Your task to perform on an android device: turn on showing notifications on the lock screen Image 0: 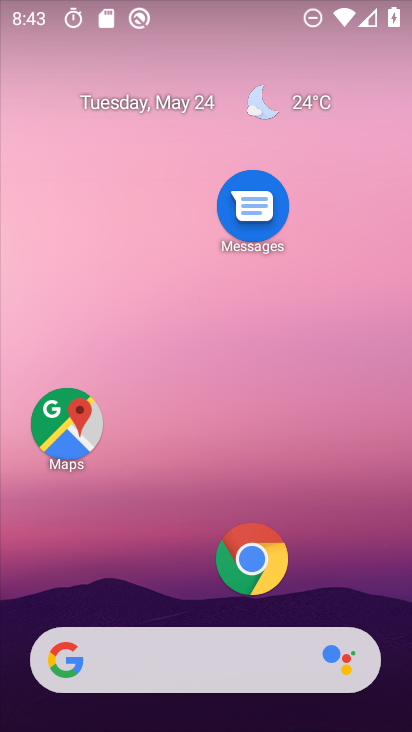
Step 0: drag from (161, 547) to (192, 97)
Your task to perform on an android device: turn on showing notifications on the lock screen Image 1: 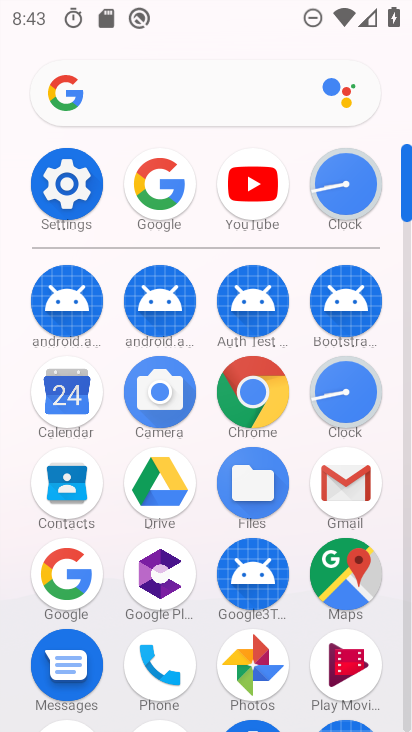
Step 1: click (87, 189)
Your task to perform on an android device: turn on showing notifications on the lock screen Image 2: 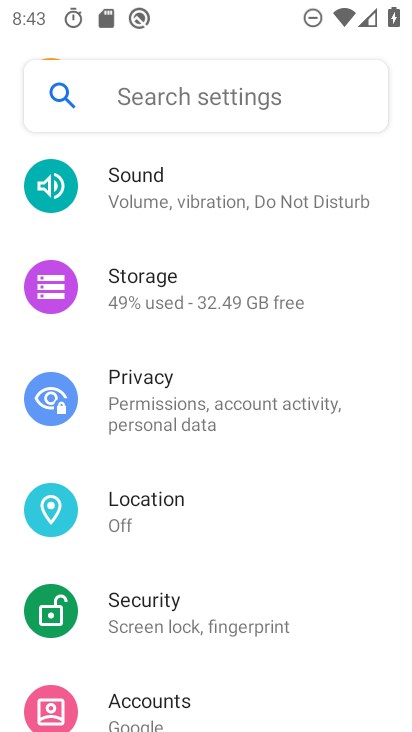
Step 2: drag from (241, 262) to (241, 561)
Your task to perform on an android device: turn on showing notifications on the lock screen Image 3: 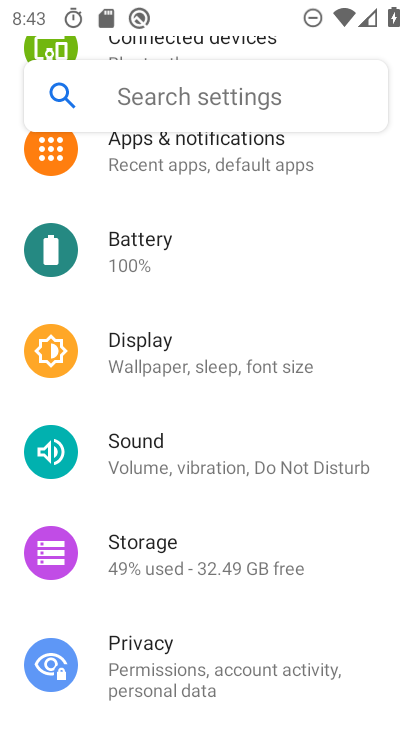
Step 3: drag from (202, 243) to (203, 382)
Your task to perform on an android device: turn on showing notifications on the lock screen Image 4: 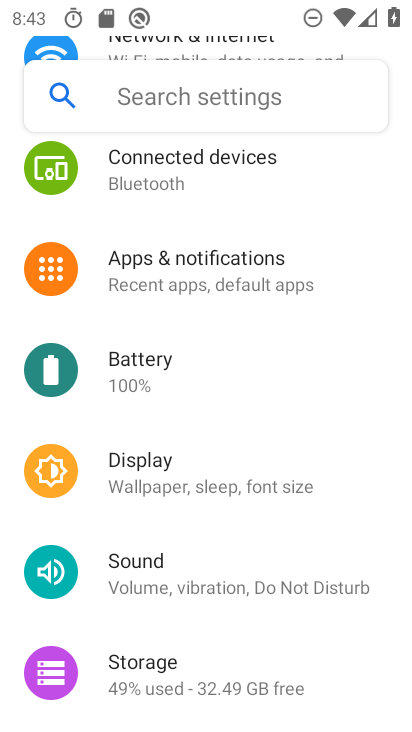
Step 4: click (181, 279)
Your task to perform on an android device: turn on showing notifications on the lock screen Image 5: 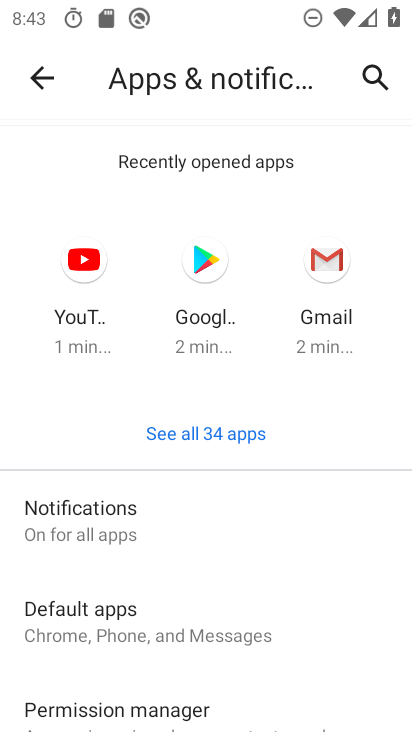
Step 5: click (159, 521)
Your task to perform on an android device: turn on showing notifications on the lock screen Image 6: 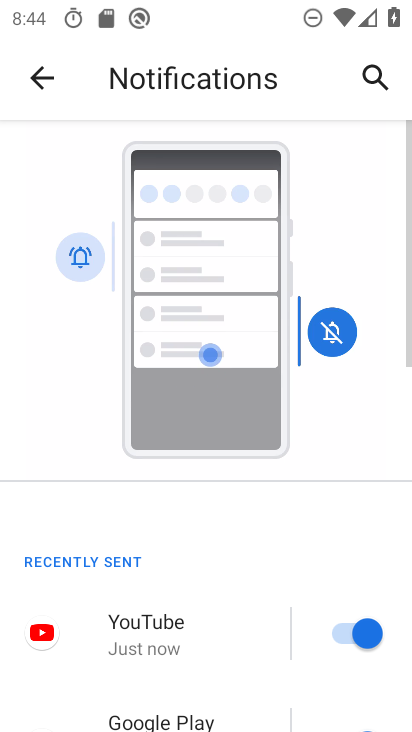
Step 6: drag from (186, 623) to (184, 272)
Your task to perform on an android device: turn on showing notifications on the lock screen Image 7: 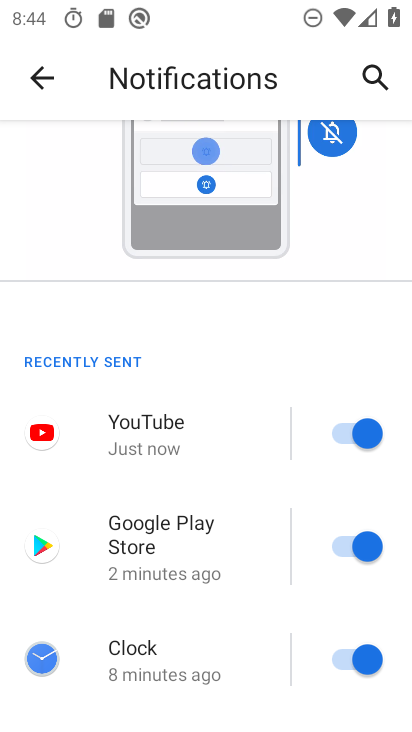
Step 7: drag from (185, 635) to (195, 280)
Your task to perform on an android device: turn on showing notifications on the lock screen Image 8: 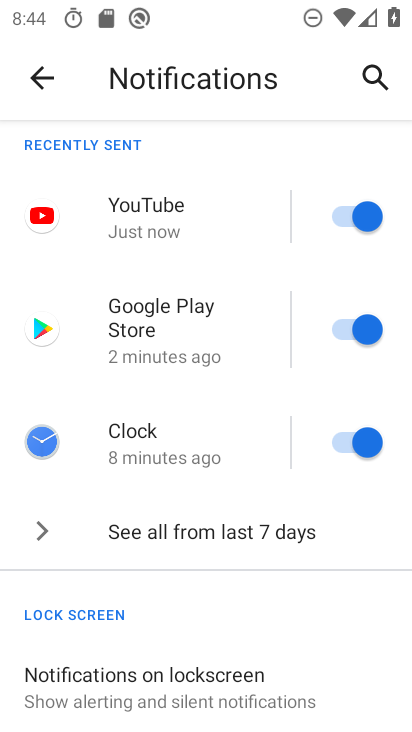
Step 8: click (198, 688)
Your task to perform on an android device: turn on showing notifications on the lock screen Image 9: 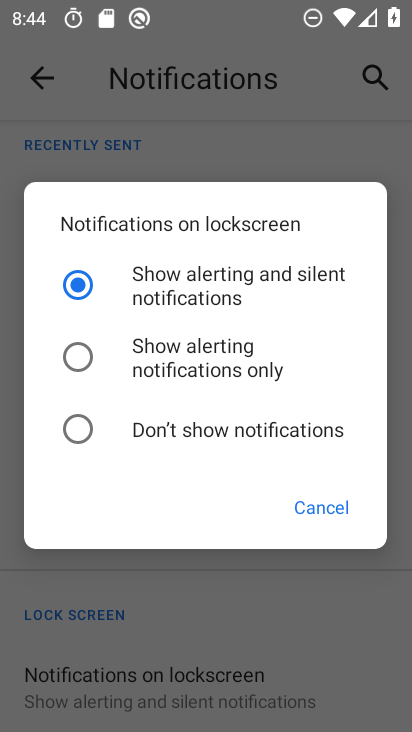
Step 9: task complete